Your task to perform on an android device: Open Google Image 0: 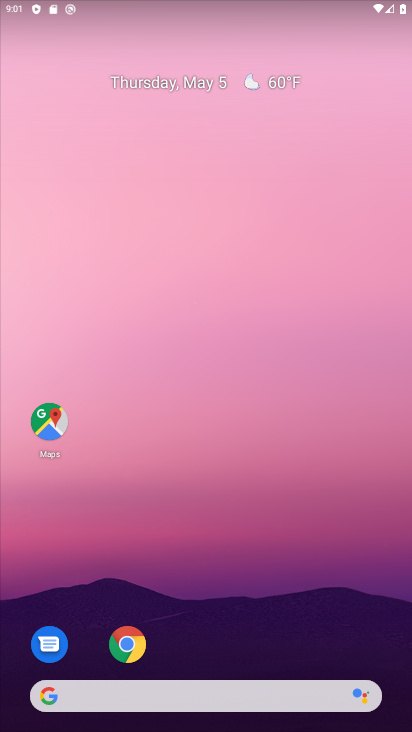
Step 0: click (200, 697)
Your task to perform on an android device: Open Google Image 1: 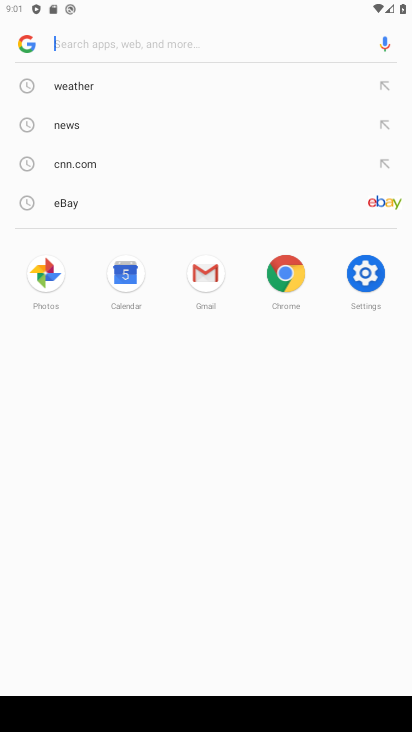
Step 1: type "google"
Your task to perform on an android device: Open Google Image 2: 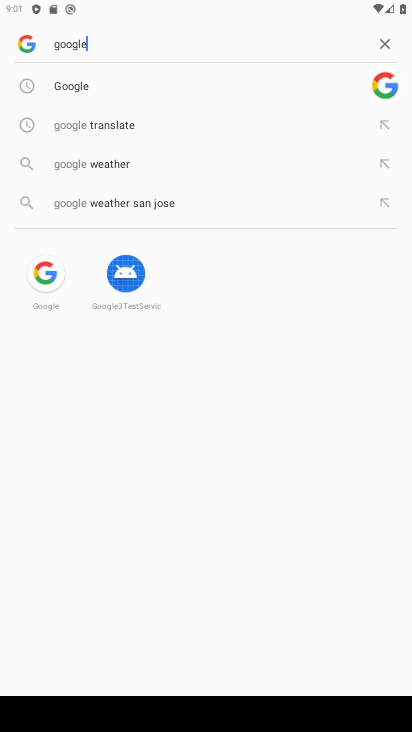
Step 2: click (89, 89)
Your task to perform on an android device: Open Google Image 3: 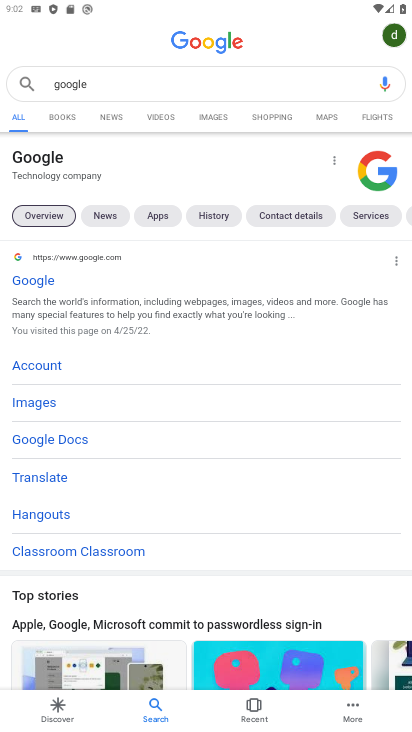
Step 3: task complete